Your task to perform on an android device: toggle airplane mode Image 0: 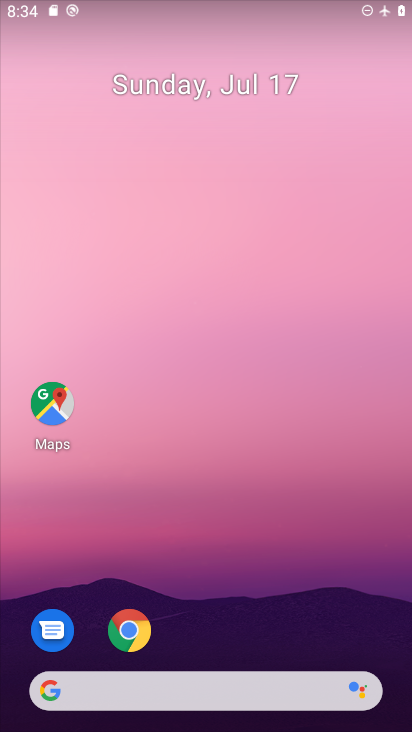
Step 0: drag from (309, 666) to (312, 198)
Your task to perform on an android device: toggle airplane mode Image 1: 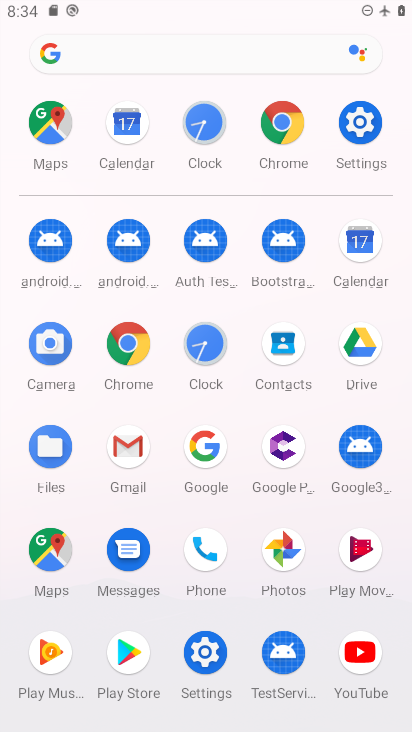
Step 1: click (360, 125)
Your task to perform on an android device: toggle airplane mode Image 2: 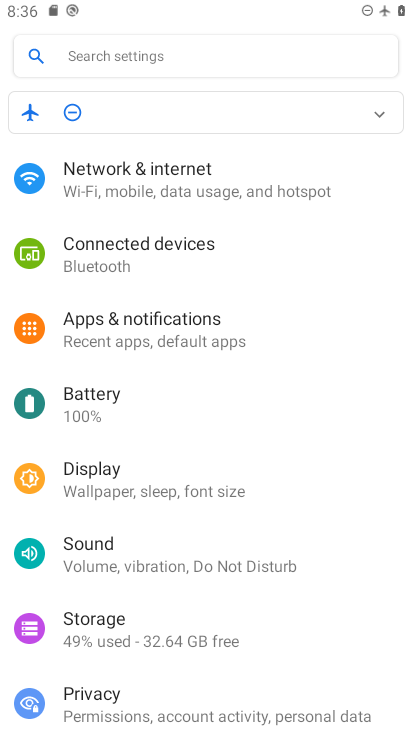
Step 2: click (218, 181)
Your task to perform on an android device: toggle airplane mode Image 3: 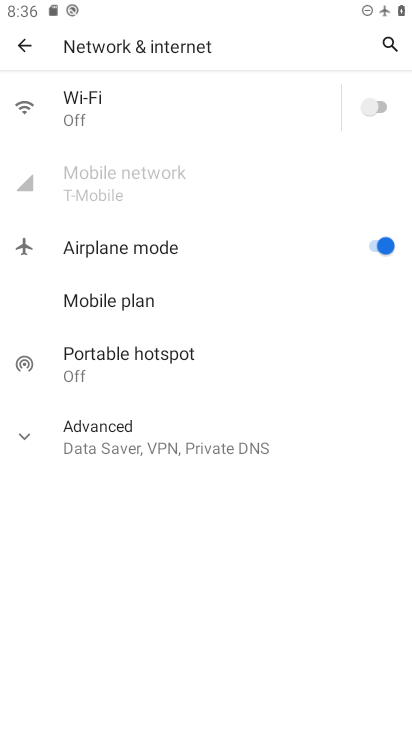
Step 3: click (380, 233)
Your task to perform on an android device: toggle airplane mode Image 4: 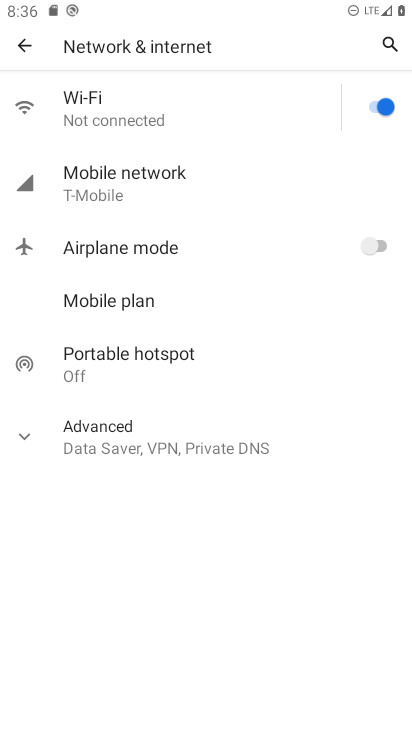
Step 4: task complete